Your task to perform on an android device: check battery use Image 0: 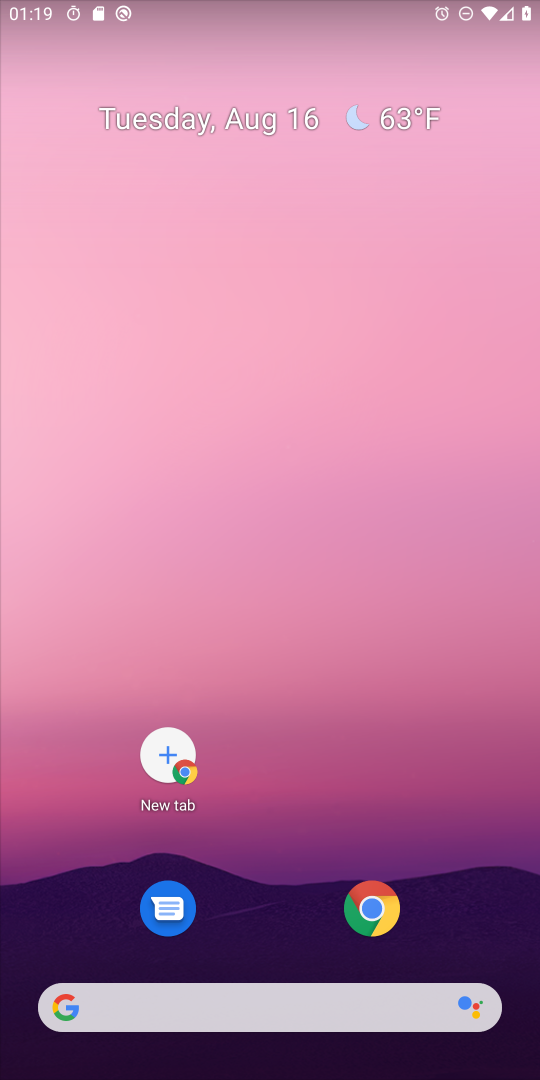
Step 0: drag from (409, 13) to (372, 467)
Your task to perform on an android device: check battery use Image 1: 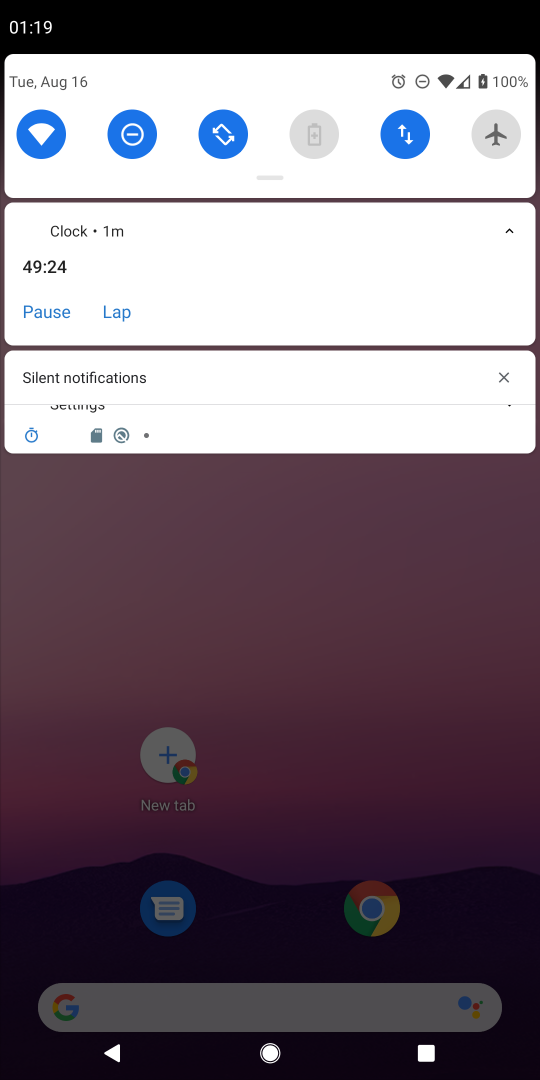
Step 1: click (372, 467)
Your task to perform on an android device: check battery use Image 2: 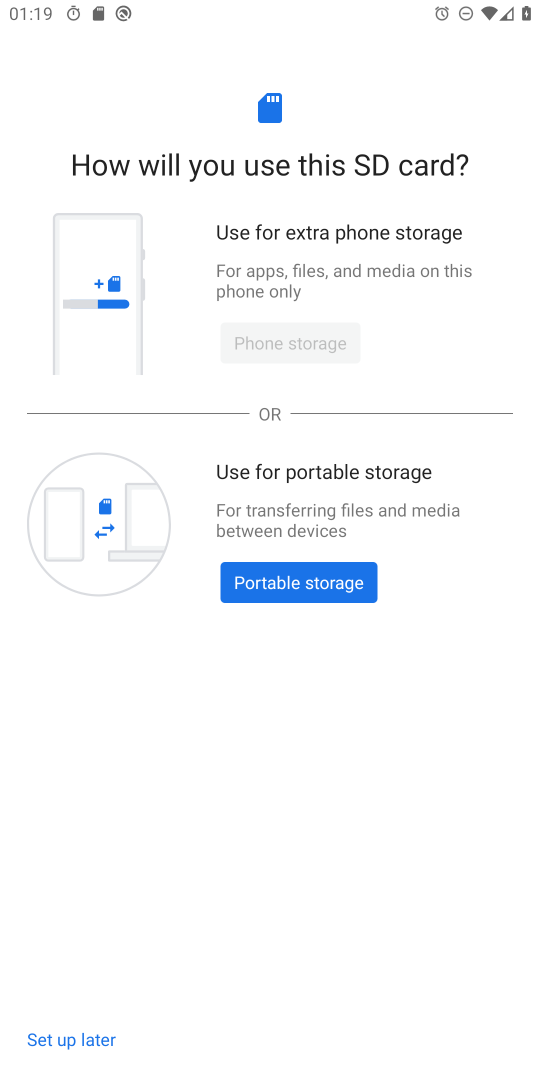
Step 2: click (310, 25)
Your task to perform on an android device: check battery use Image 3: 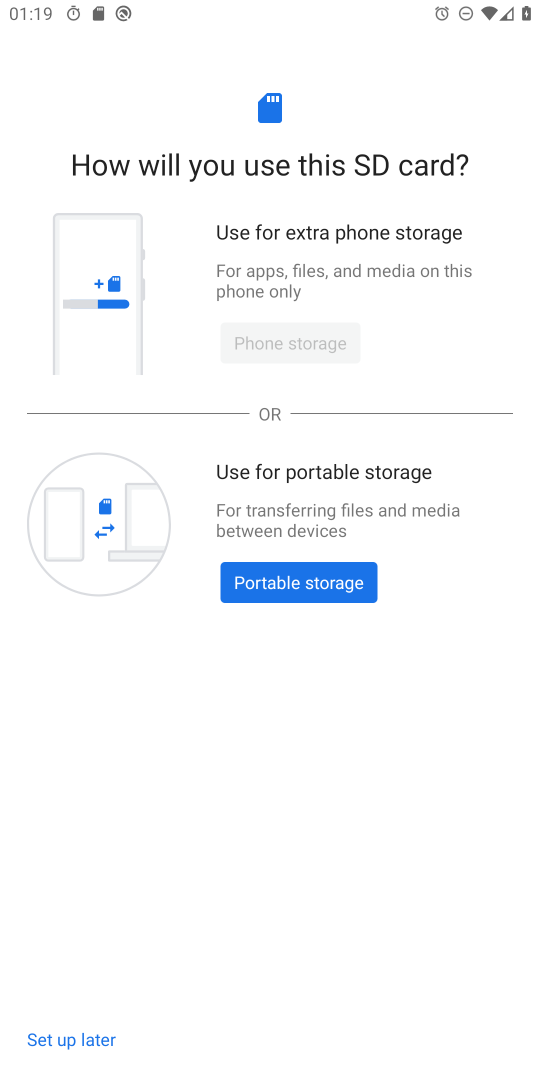
Step 3: drag from (537, 289) to (525, 534)
Your task to perform on an android device: check battery use Image 4: 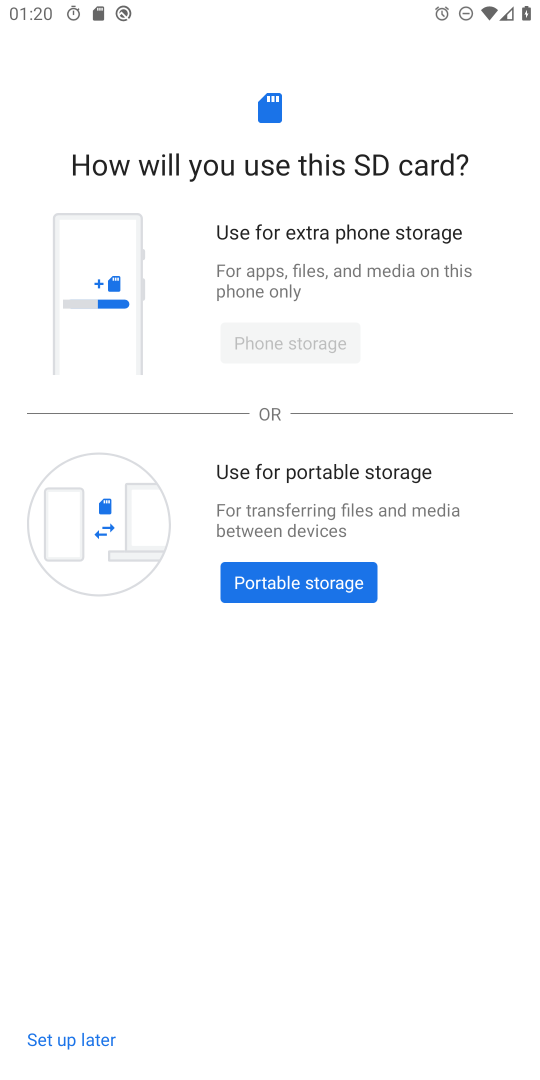
Step 4: drag from (224, 11) to (200, 562)
Your task to perform on an android device: check battery use Image 5: 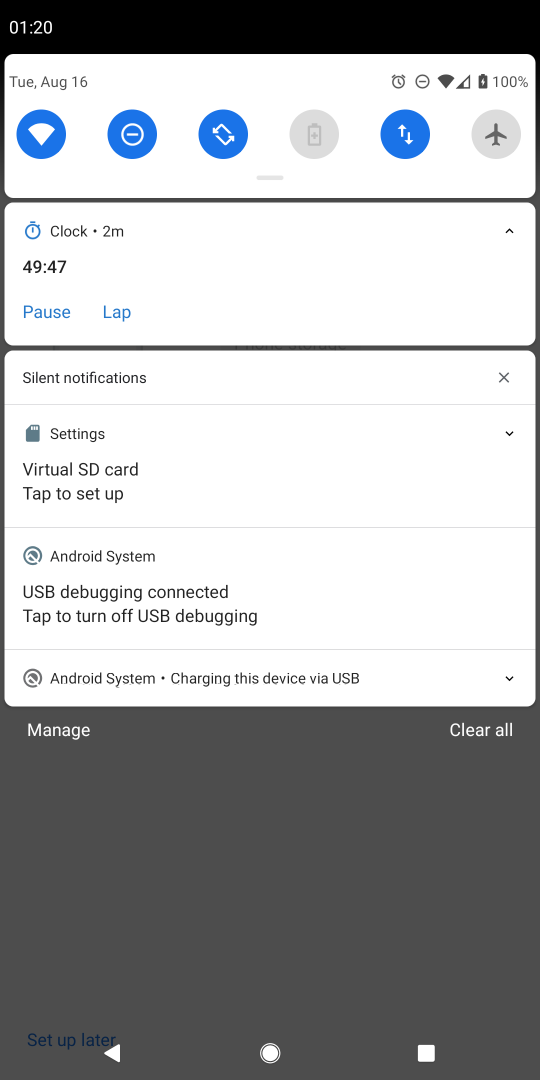
Step 5: click (315, 123)
Your task to perform on an android device: check battery use Image 6: 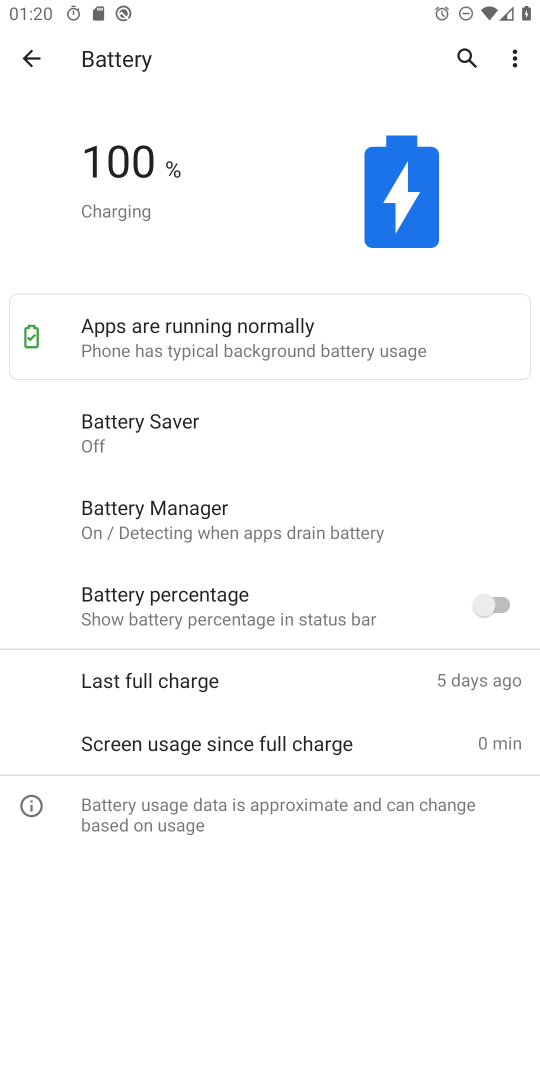
Step 6: click (502, 51)
Your task to perform on an android device: check battery use Image 7: 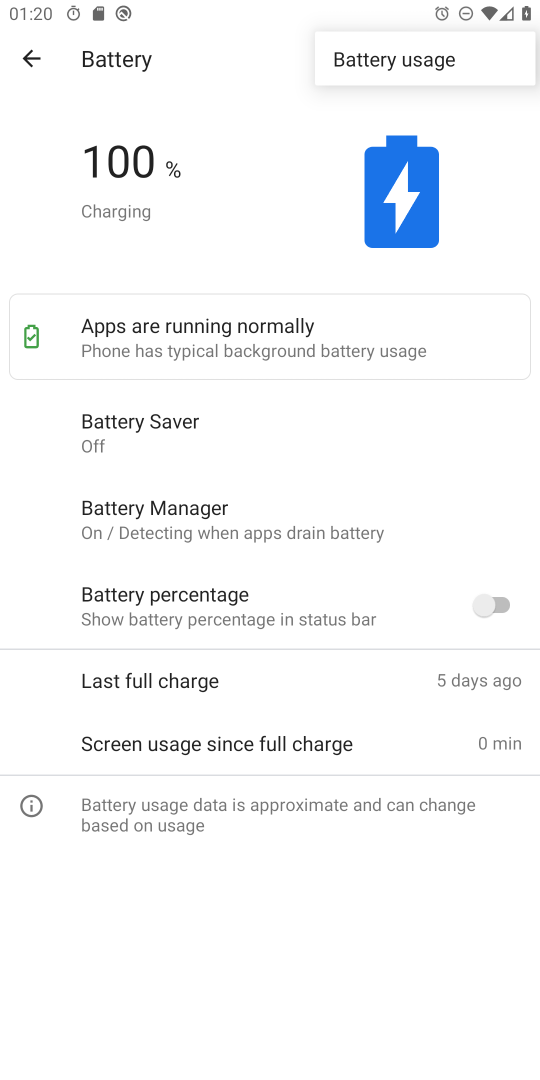
Step 7: click (443, 65)
Your task to perform on an android device: check battery use Image 8: 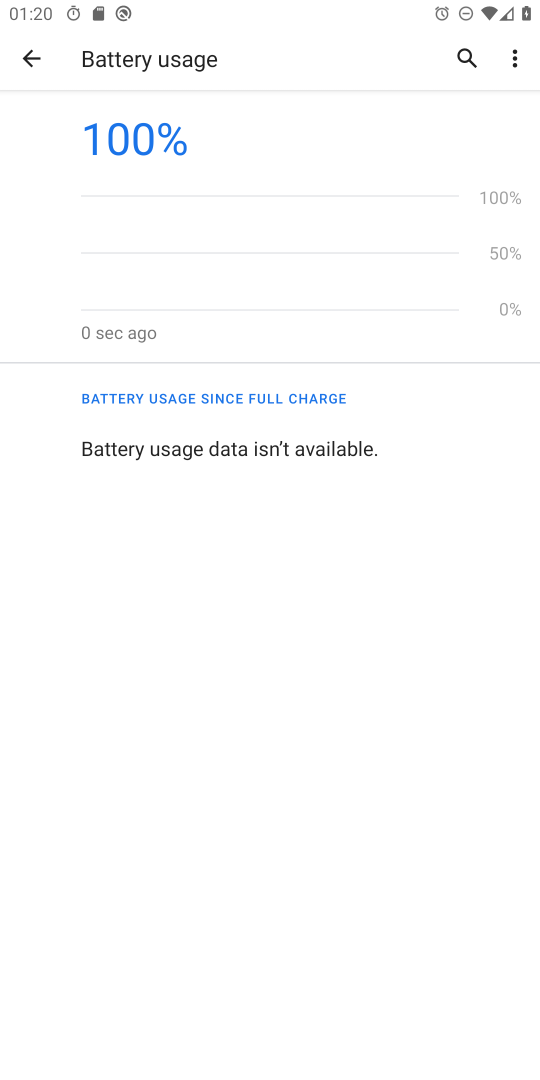
Step 8: task complete